Your task to perform on an android device: Go to settings Image 0: 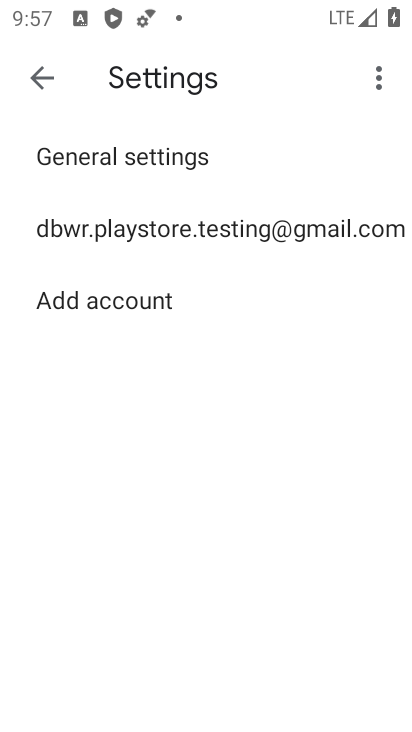
Step 0: press home button
Your task to perform on an android device: Go to settings Image 1: 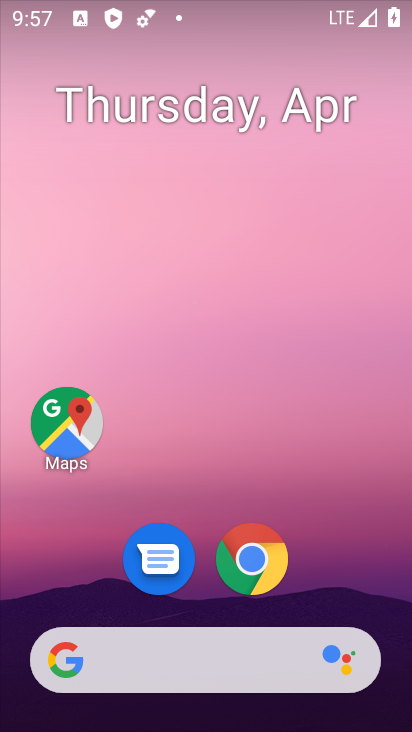
Step 1: drag from (228, 720) to (203, 430)
Your task to perform on an android device: Go to settings Image 2: 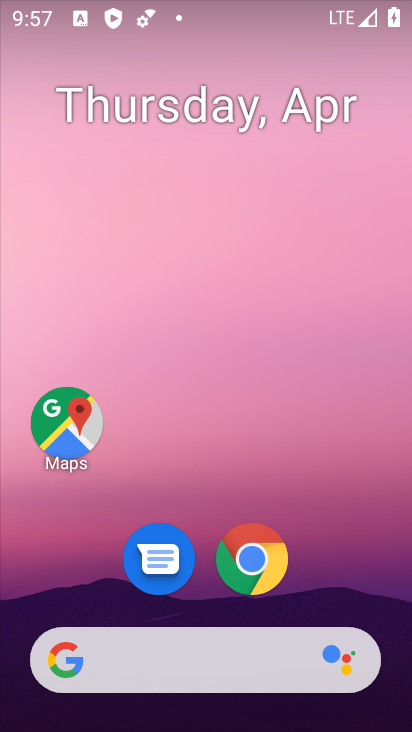
Step 2: drag from (262, 723) to (198, 19)
Your task to perform on an android device: Go to settings Image 3: 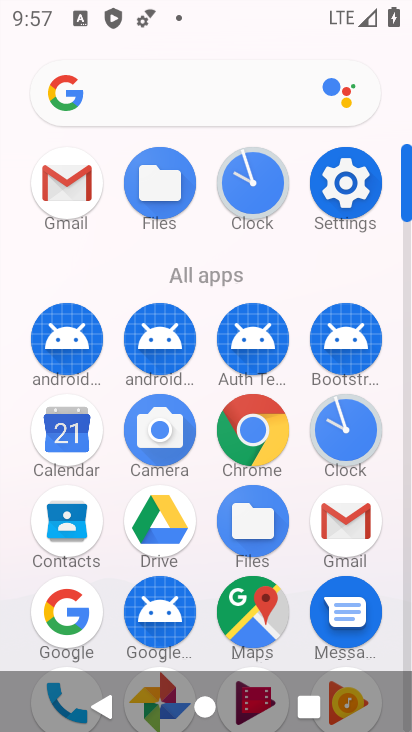
Step 3: click (351, 179)
Your task to perform on an android device: Go to settings Image 4: 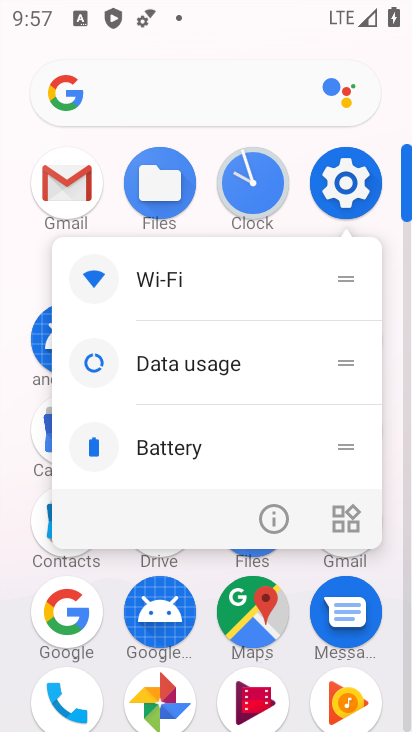
Step 4: click (351, 179)
Your task to perform on an android device: Go to settings Image 5: 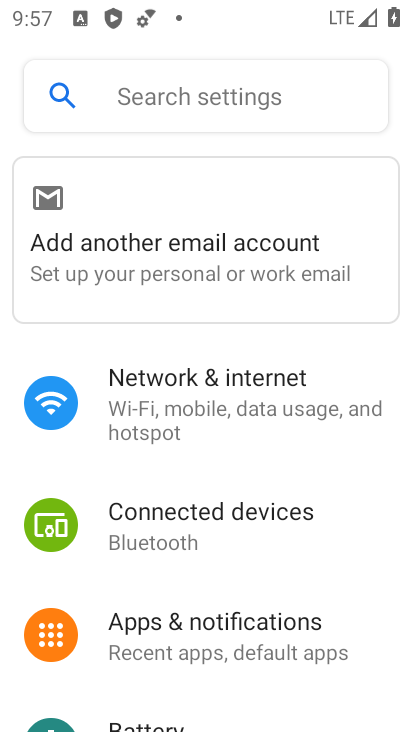
Step 5: task complete